Your task to perform on an android device: Open internet settings Image 0: 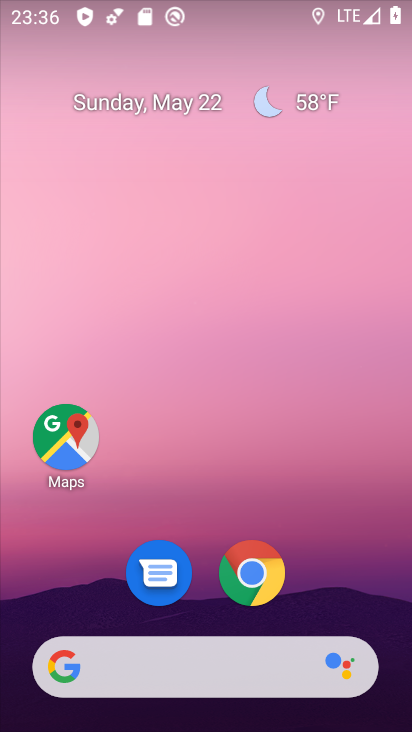
Step 0: drag from (203, 580) to (253, 13)
Your task to perform on an android device: Open internet settings Image 1: 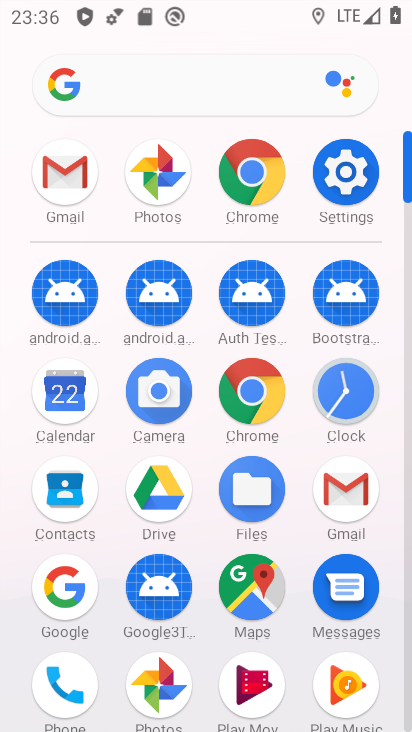
Step 1: click (347, 186)
Your task to perform on an android device: Open internet settings Image 2: 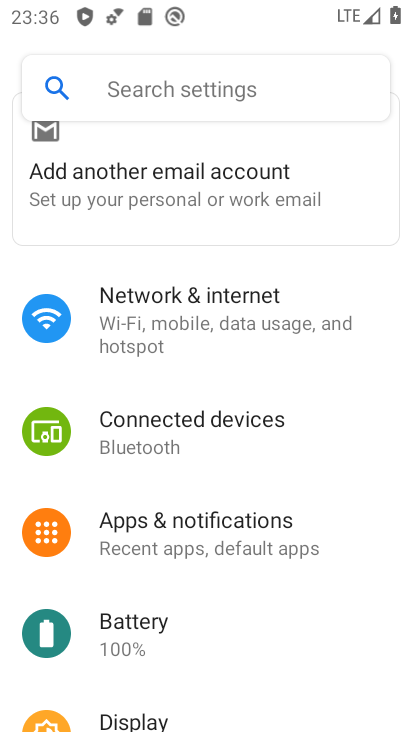
Step 2: click (238, 304)
Your task to perform on an android device: Open internet settings Image 3: 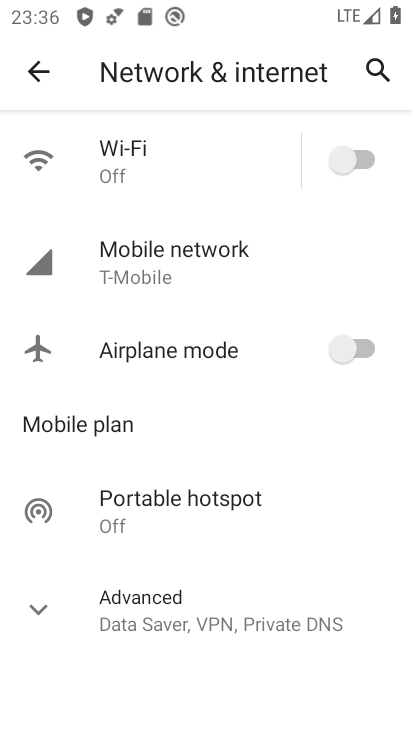
Step 3: task complete